Your task to perform on an android device: Go to network settings Image 0: 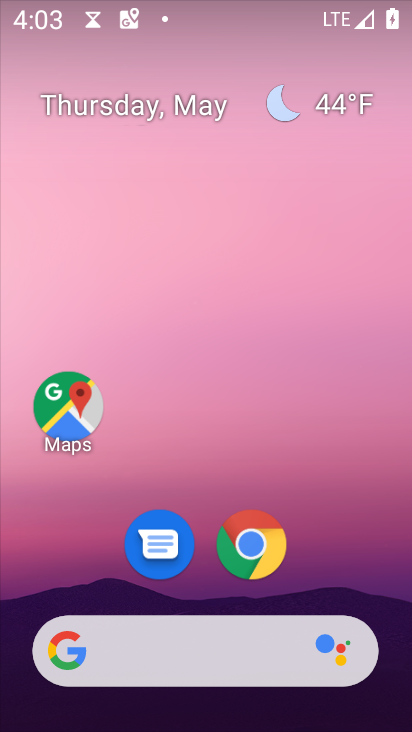
Step 0: drag from (317, 570) to (399, 10)
Your task to perform on an android device: Go to network settings Image 1: 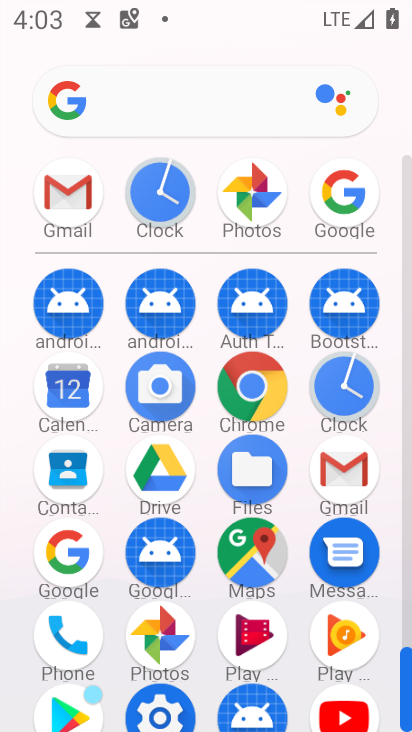
Step 1: drag from (209, 610) to (259, 326)
Your task to perform on an android device: Go to network settings Image 2: 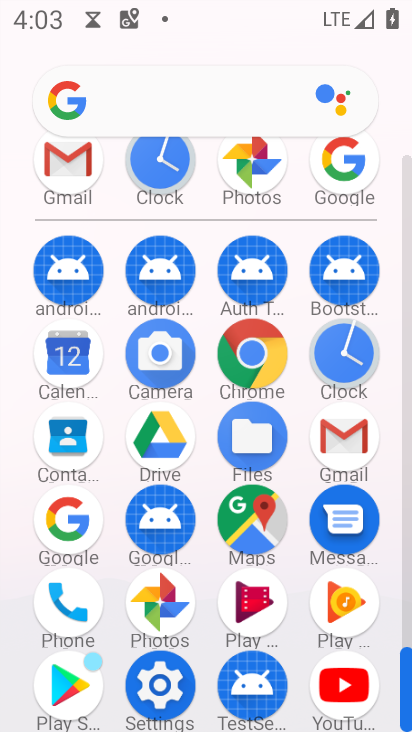
Step 2: click (160, 691)
Your task to perform on an android device: Go to network settings Image 3: 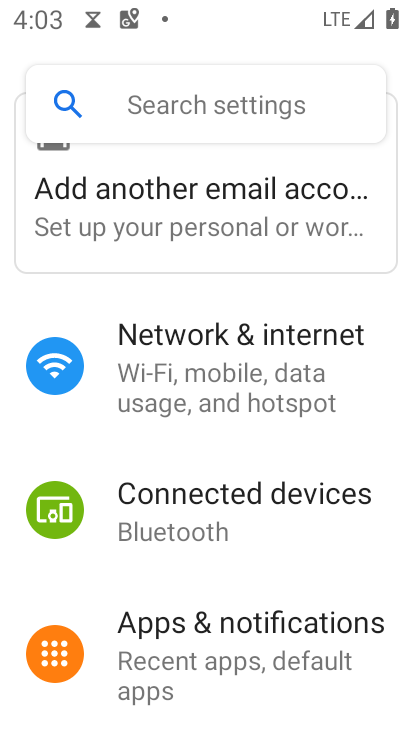
Step 3: click (237, 378)
Your task to perform on an android device: Go to network settings Image 4: 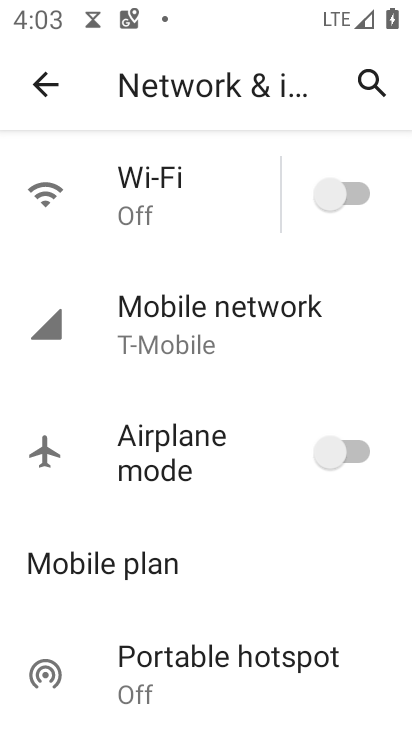
Step 4: click (208, 307)
Your task to perform on an android device: Go to network settings Image 5: 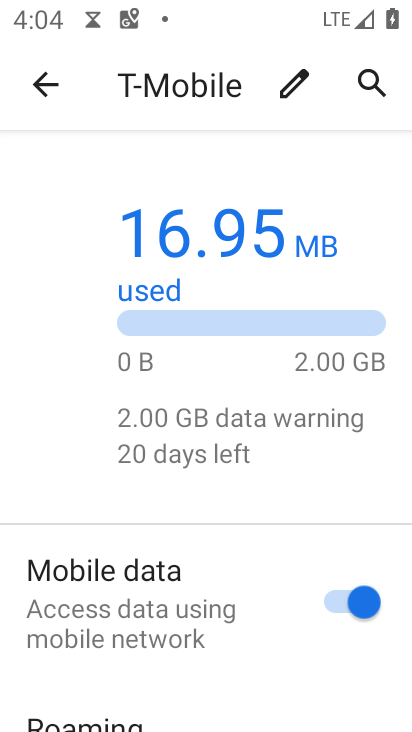
Step 5: task complete